Your task to perform on an android device: Open maps Image 0: 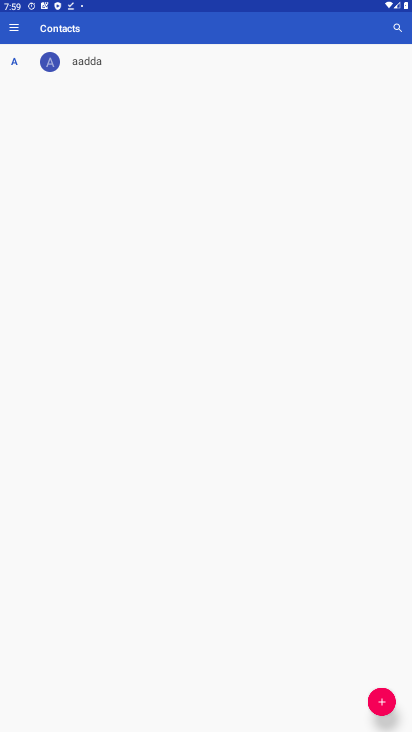
Step 0: press home button
Your task to perform on an android device: Open maps Image 1: 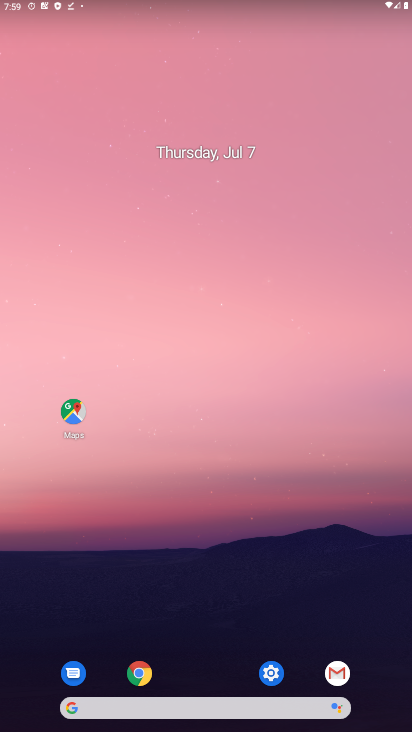
Step 1: click (71, 415)
Your task to perform on an android device: Open maps Image 2: 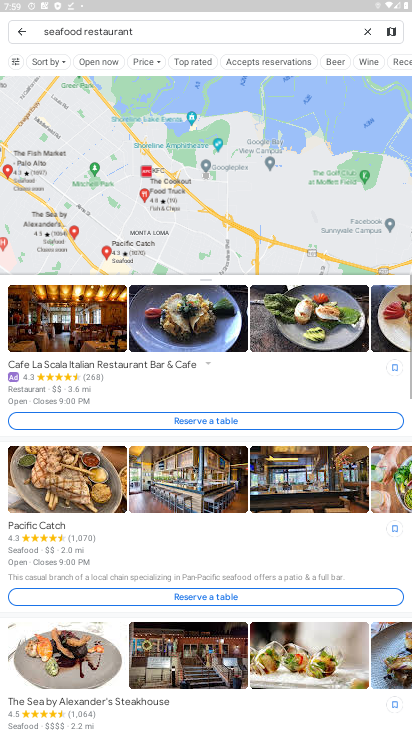
Step 2: click (26, 33)
Your task to perform on an android device: Open maps Image 3: 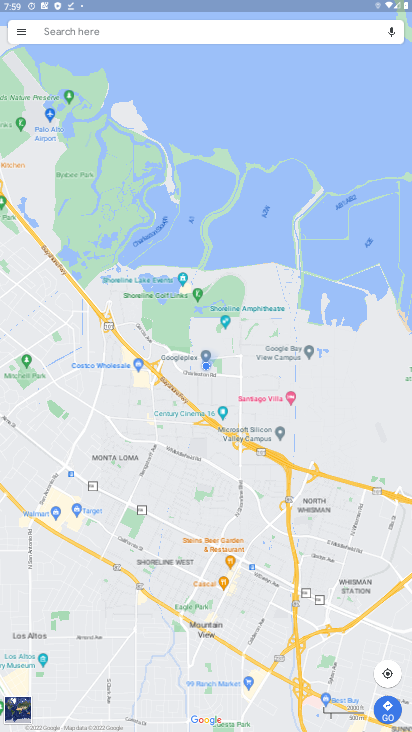
Step 3: click (389, 670)
Your task to perform on an android device: Open maps Image 4: 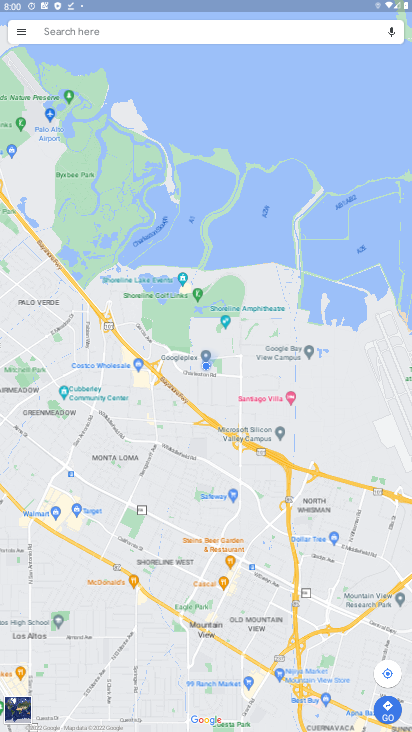
Step 4: task complete